Your task to perform on an android device: Go to Maps Image 0: 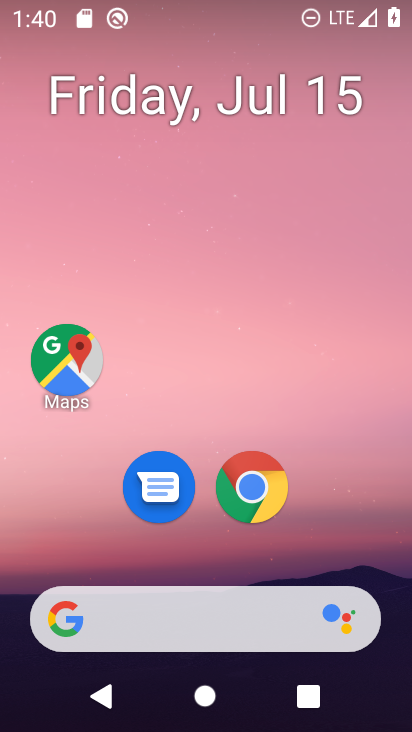
Step 0: drag from (300, 136) to (309, 62)
Your task to perform on an android device: Go to Maps Image 1: 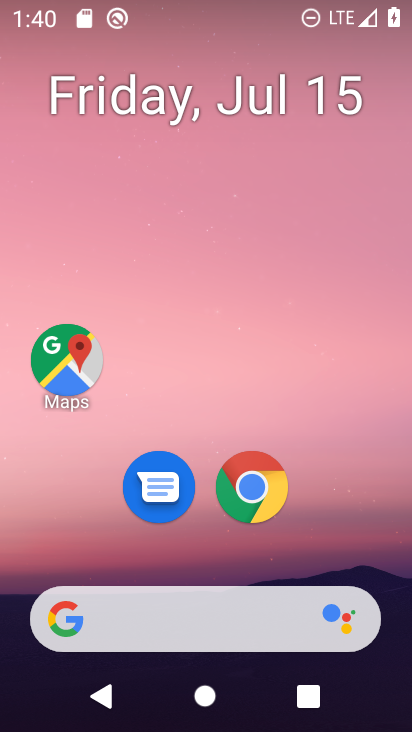
Step 1: drag from (267, 279) to (253, 4)
Your task to perform on an android device: Go to Maps Image 2: 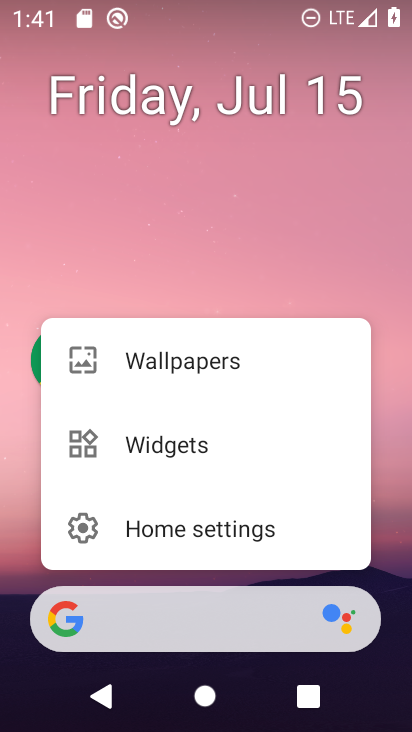
Step 2: click (219, 169)
Your task to perform on an android device: Go to Maps Image 3: 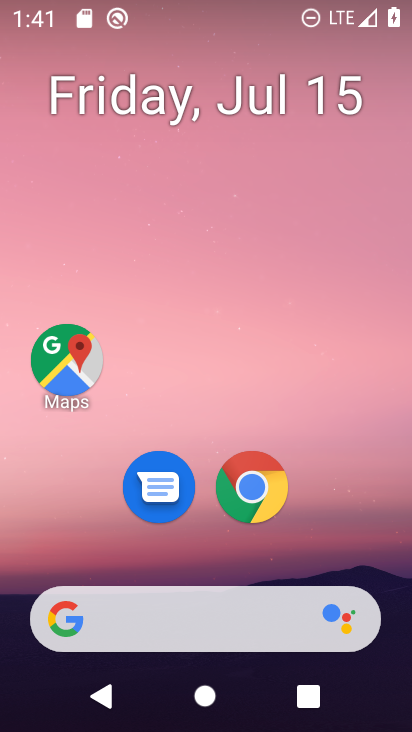
Step 3: drag from (200, 643) to (272, 68)
Your task to perform on an android device: Go to Maps Image 4: 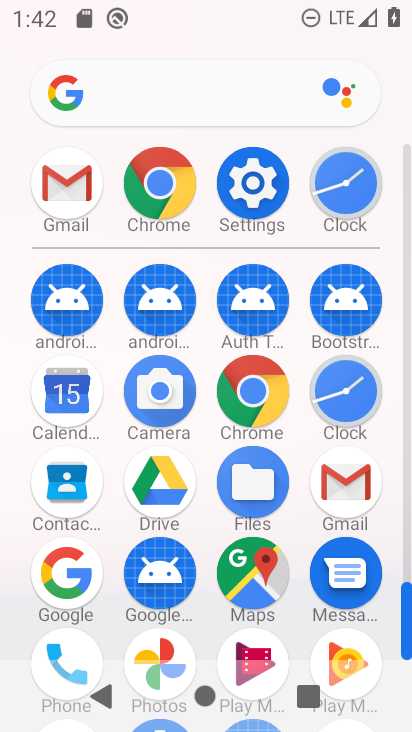
Step 4: click (238, 580)
Your task to perform on an android device: Go to Maps Image 5: 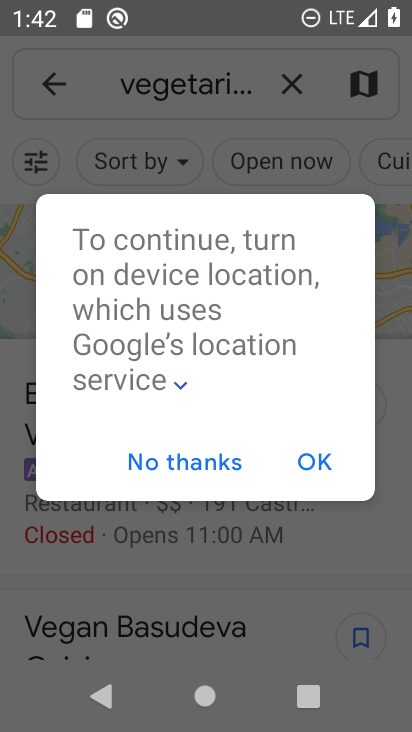
Step 5: click (318, 460)
Your task to perform on an android device: Go to Maps Image 6: 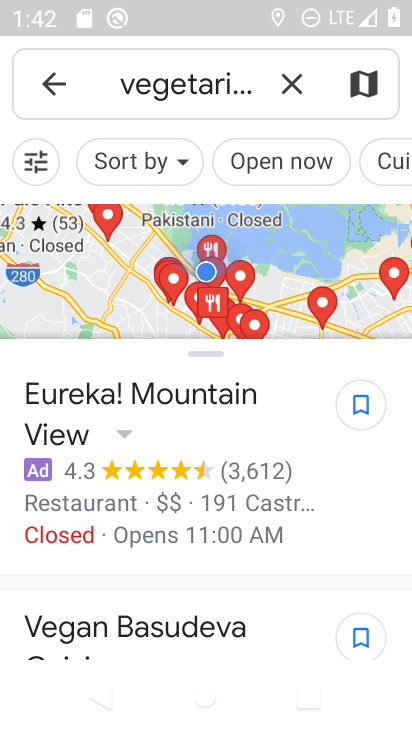
Step 6: task complete